Your task to perform on an android device: What's the weather today? Image 0: 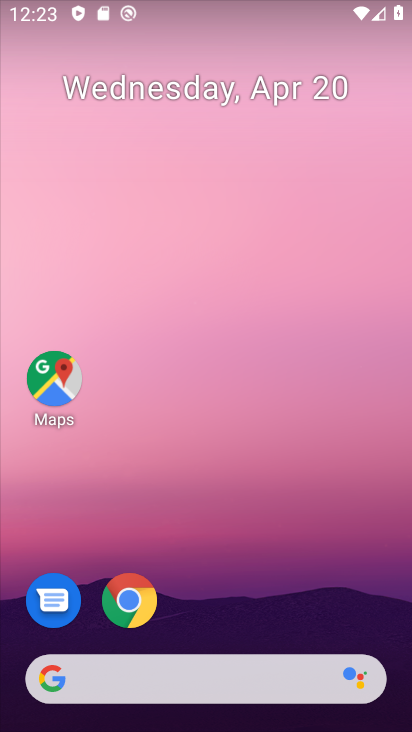
Step 0: drag from (293, 640) to (361, 114)
Your task to perform on an android device: What's the weather today? Image 1: 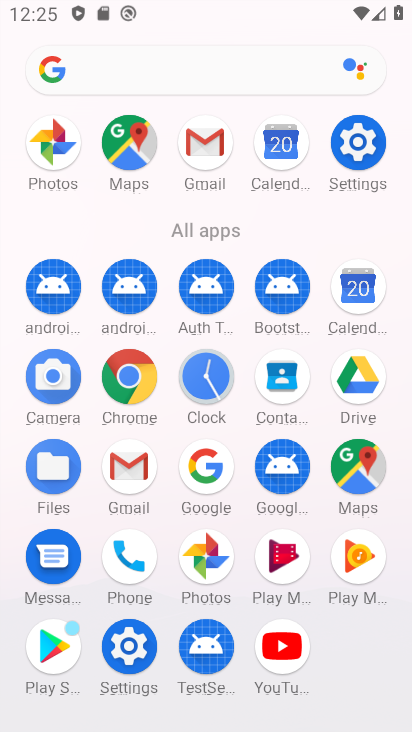
Step 1: click (217, 465)
Your task to perform on an android device: What's the weather today? Image 2: 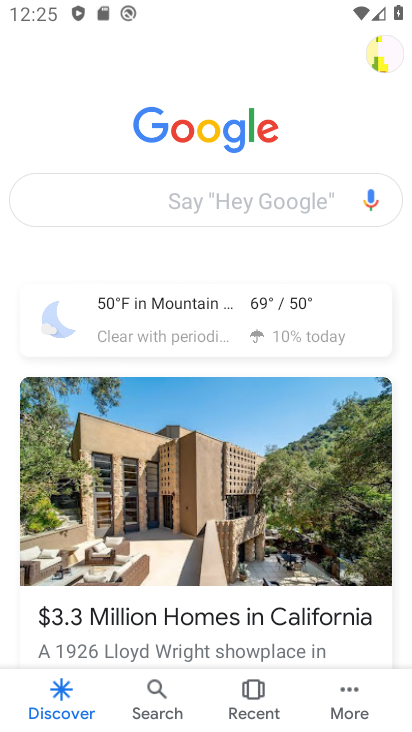
Step 2: click (116, 311)
Your task to perform on an android device: What's the weather today? Image 3: 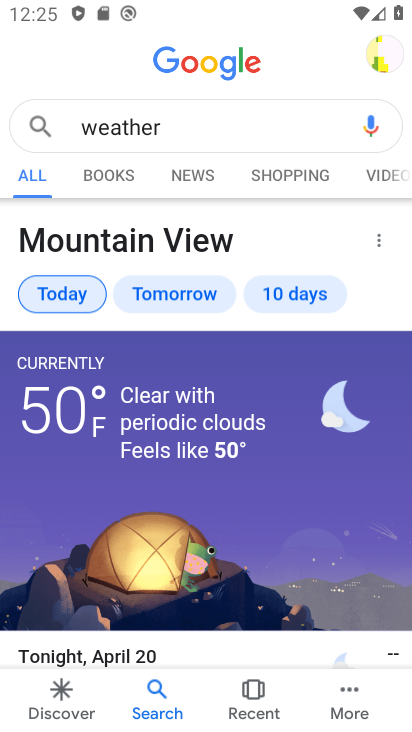
Step 3: task complete